Your task to perform on an android device: check the backup settings in the google photos Image 0: 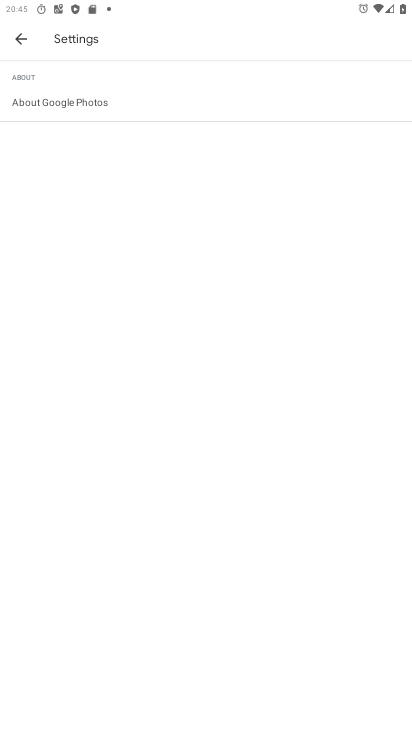
Step 0: press home button
Your task to perform on an android device: check the backup settings in the google photos Image 1: 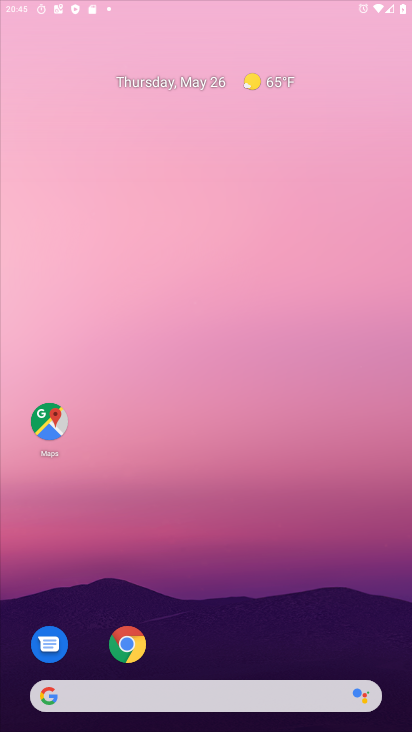
Step 1: drag from (139, 632) to (182, 29)
Your task to perform on an android device: check the backup settings in the google photos Image 2: 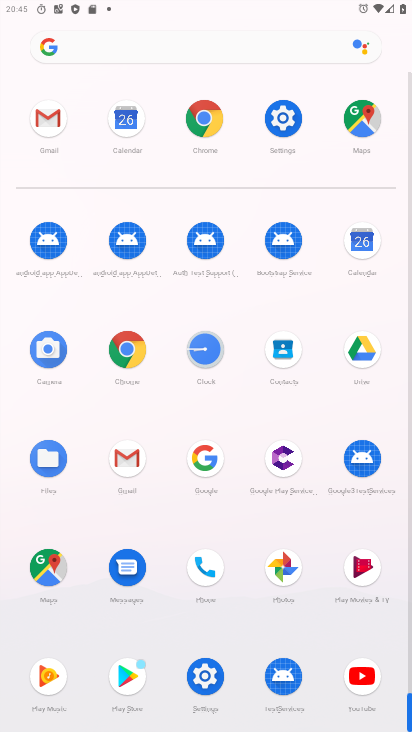
Step 2: click (283, 560)
Your task to perform on an android device: check the backup settings in the google photos Image 3: 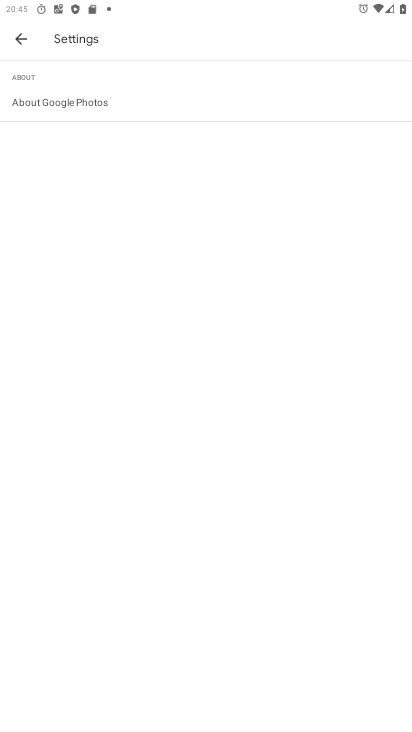
Step 3: click (92, 246)
Your task to perform on an android device: check the backup settings in the google photos Image 4: 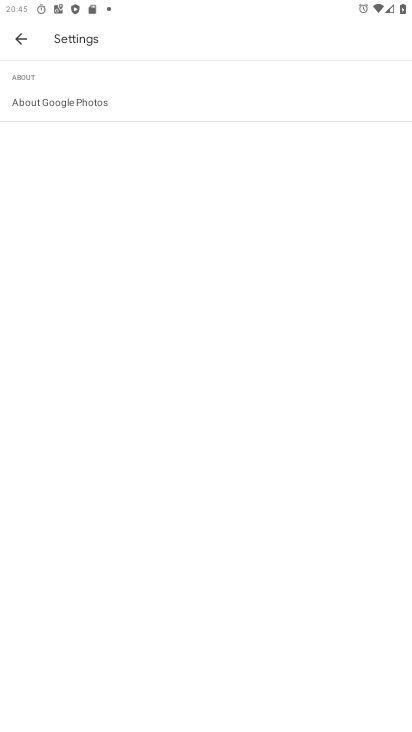
Step 4: click (92, 246)
Your task to perform on an android device: check the backup settings in the google photos Image 5: 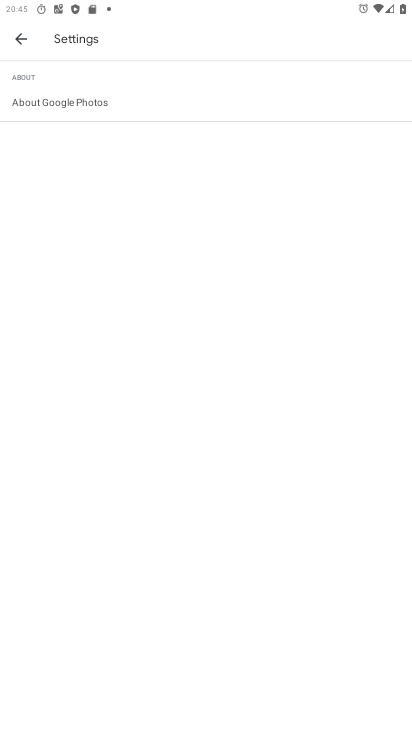
Step 5: click (9, 37)
Your task to perform on an android device: check the backup settings in the google photos Image 6: 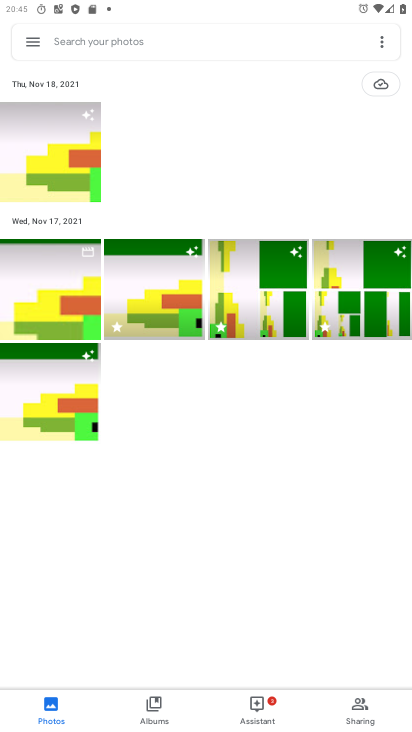
Step 6: click (33, 45)
Your task to perform on an android device: check the backup settings in the google photos Image 7: 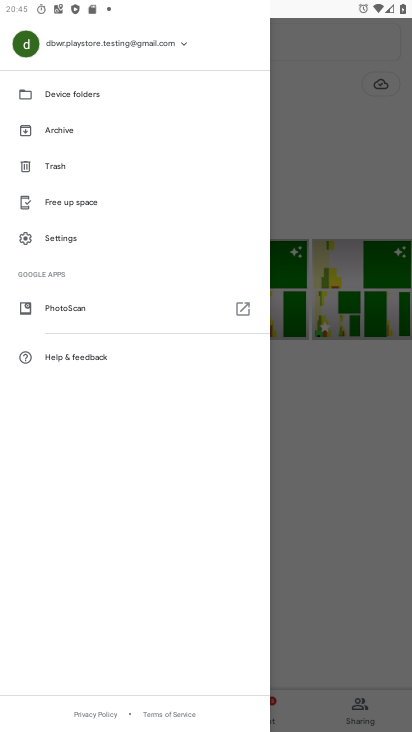
Step 7: click (41, 248)
Your task to perform on an android device: check the backup settings in the google photos Image 8: 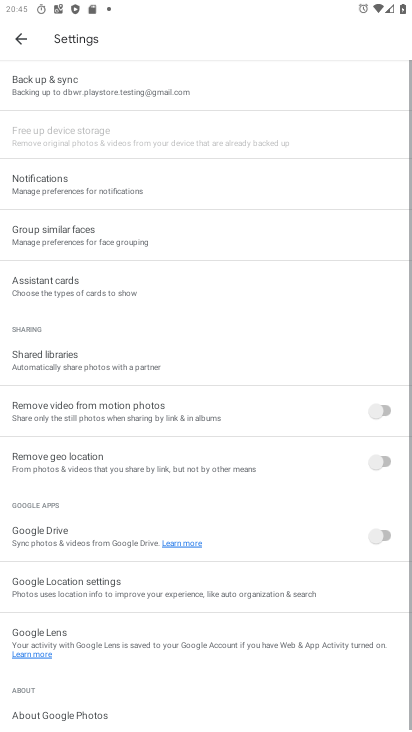
Step 8: drag from (269, 550) to (287, 718)
Your task to perform on an android device: check the backup settings in the google photos Image 9: 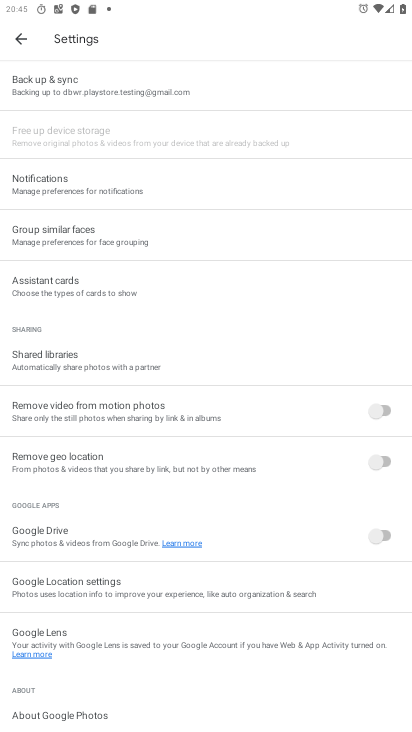
Step 9: click (155, 99)
Your task to perform on an android device: check the backup settings in the google photos Image 10: 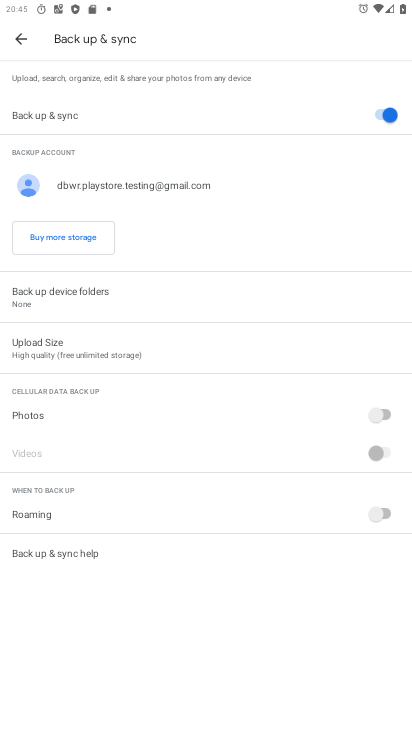
Step 10: task complete